Your task to perform on an android device: Open Chrome and go to settings Image 0: 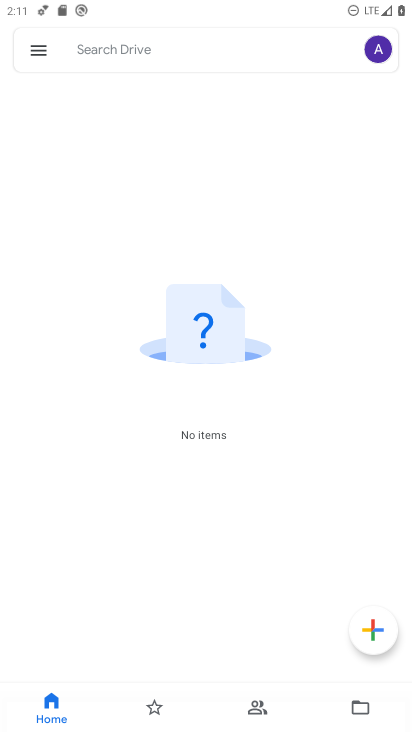
Step 0: press home button
Your task to perform on an android device: Open Chrome and go to settings Image 1: 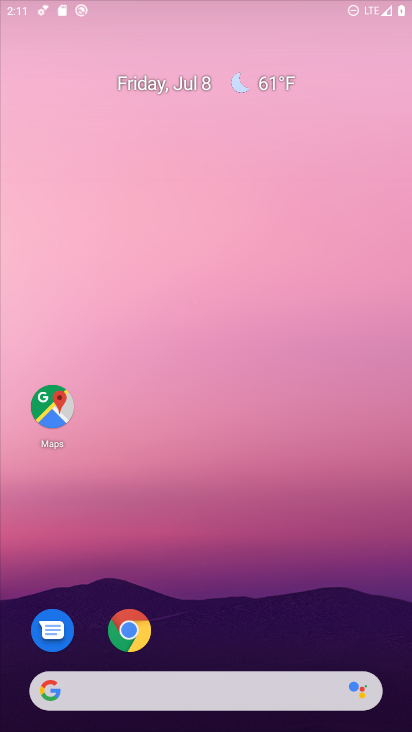
Step 1: drag from (394, 669) to (224, 8)
Your task to perform on an android device: Open Chrome and go to settings Image 2: 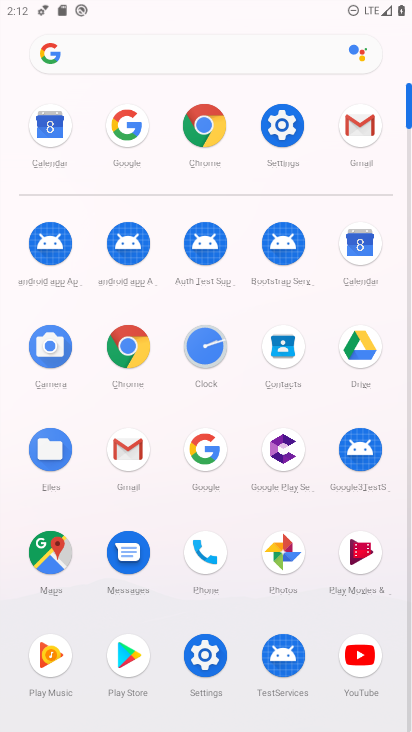
Step 2: click (206, 122)
Your task to perform on an android device: Open Chrome and go to settings Image 3: 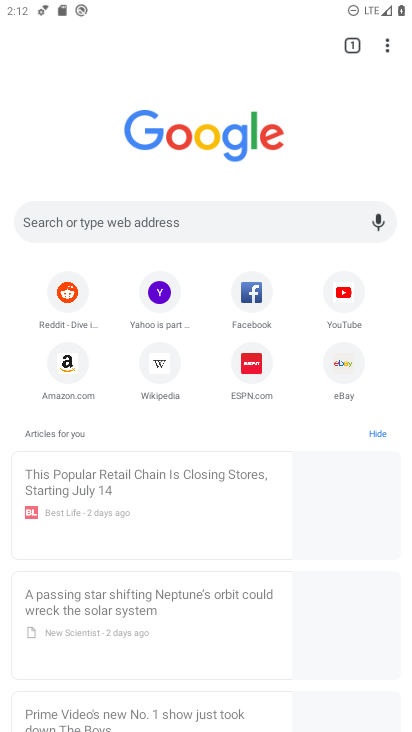
Step 3: click (384, 39)
Your task to perform on an android device: Open Chrome and go to settings Image 4: 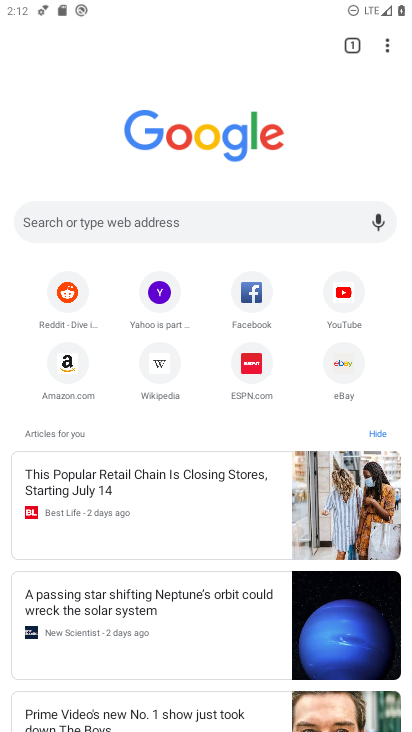
Step 4: click (385, 39)
Your task to perform on an android device: Open Chrome and go to settings Image 5: 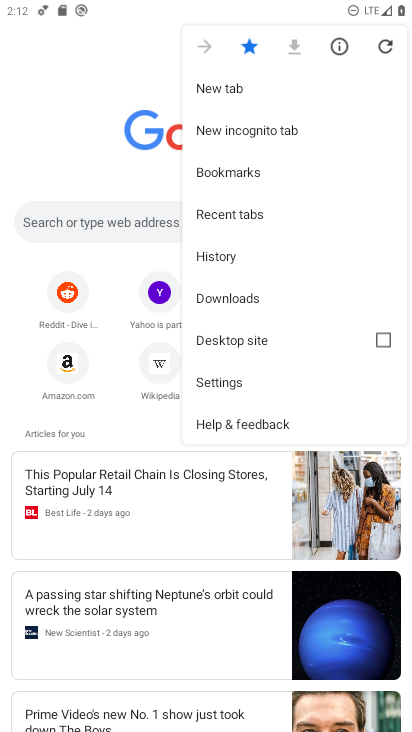
Step 5: click (219, 382)
Your task to perform on an android device: Open Chrome and go to settings Image 6: 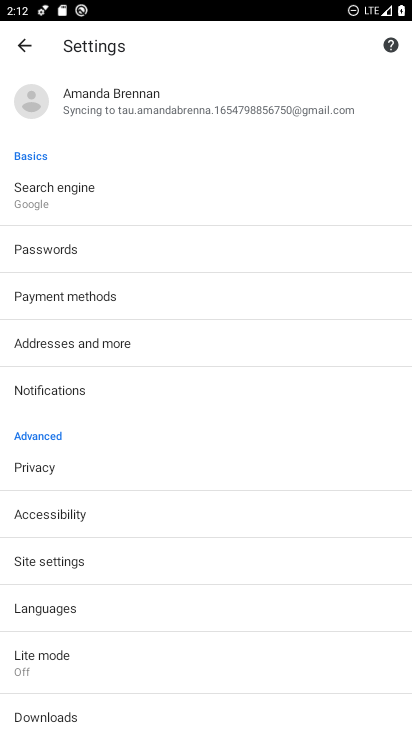
Step 6: task complete